Your task to perform on an android device: Go to Maps Image 0: 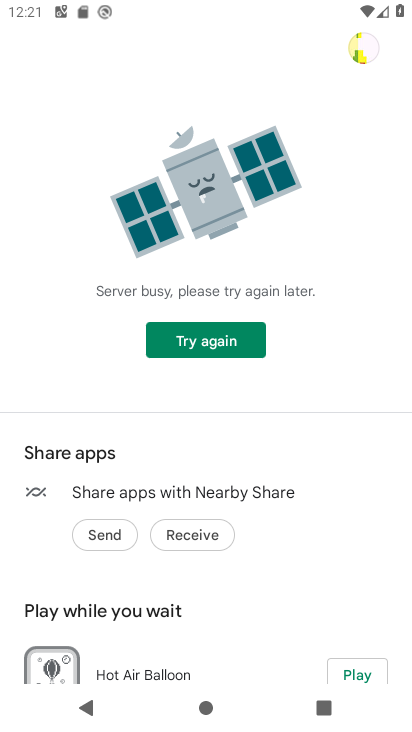
Step 0: press back button
Your task to perform on an android device: Go to Maps Image 1: 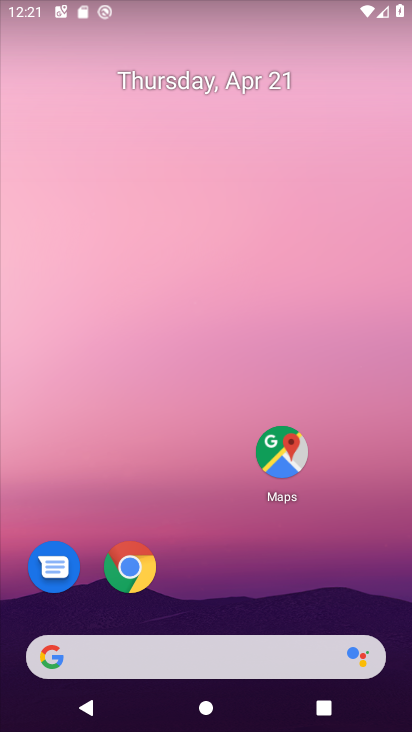
Step 1: click (289, 444)
Your task to perform on an android device: Go to Maps Image 2: 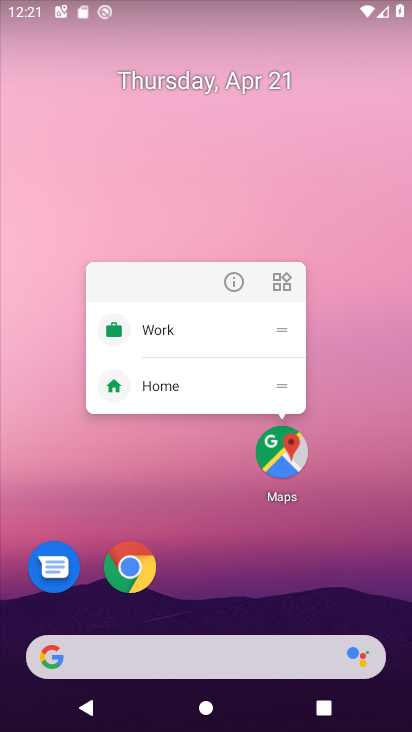
Step 2: click (292, 457)
Your task to perform on an android device: Go to Maps Image 3: 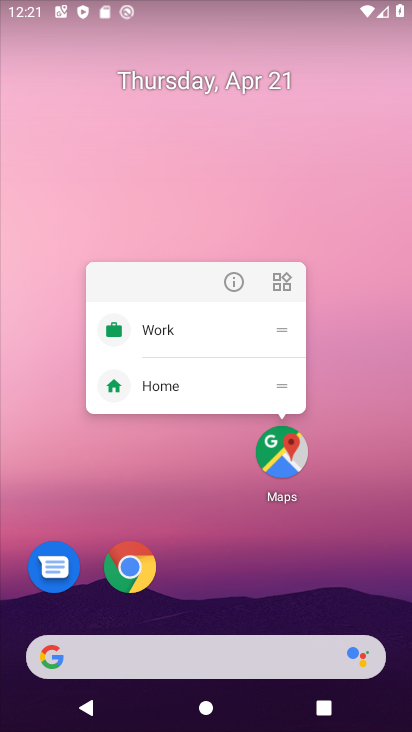
Step 3: click (295, 475)
Your task to perform on an android device: Go to Maps Image 4: 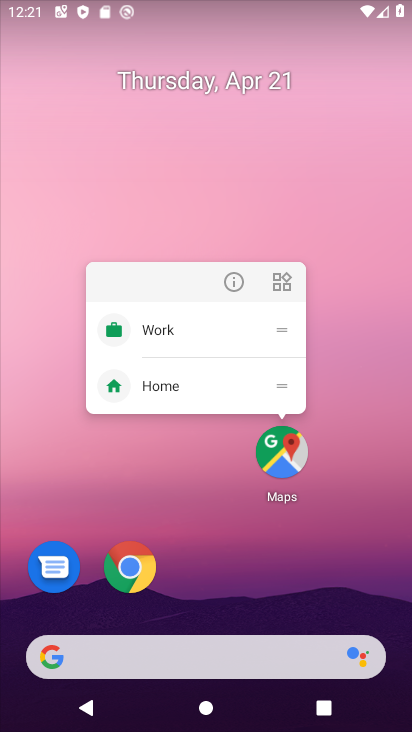
Step 4: click (283, 466)
Your task to perform on an android device: Go to Maps Image 5: 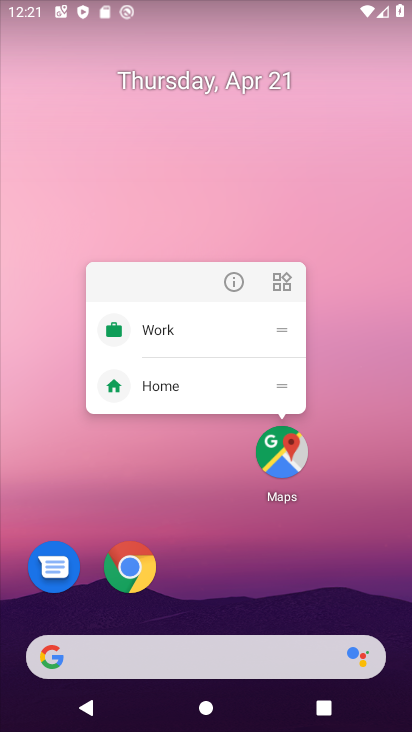
Step 5: click (297, 451)
Your task to perform on an android device: Go to Maps Image 6: 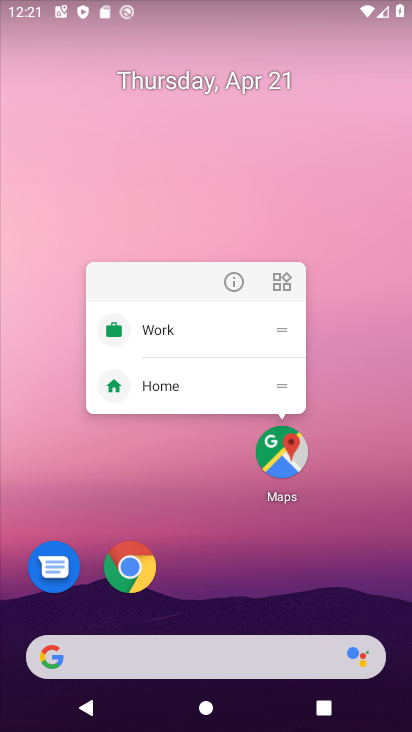
Step 6: click (286, 459)
Your task to perform on an android device: Go to Maps Image 7: 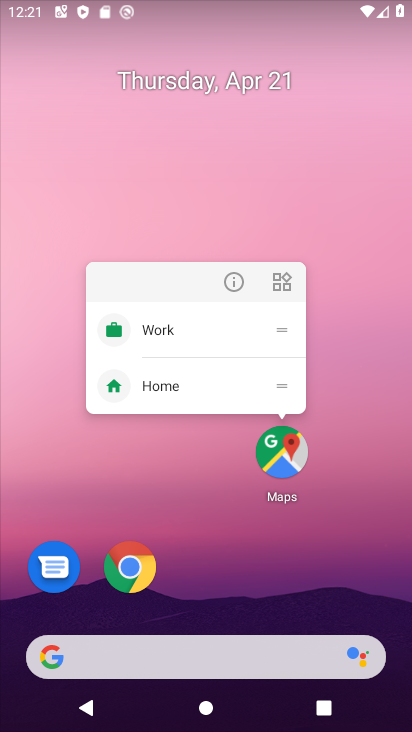
Step 7: click (292, 455)
Your task to perform on an android device: Go to Maps Image 8: 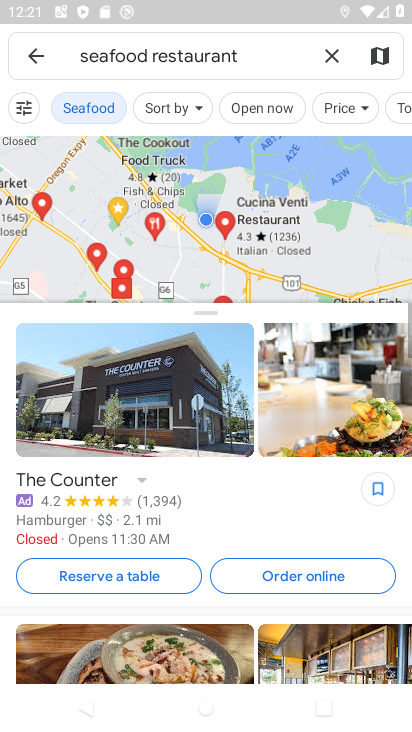
Step 8: task complete